Your task to perform on an android device: open chrome privacy settings Image 0: 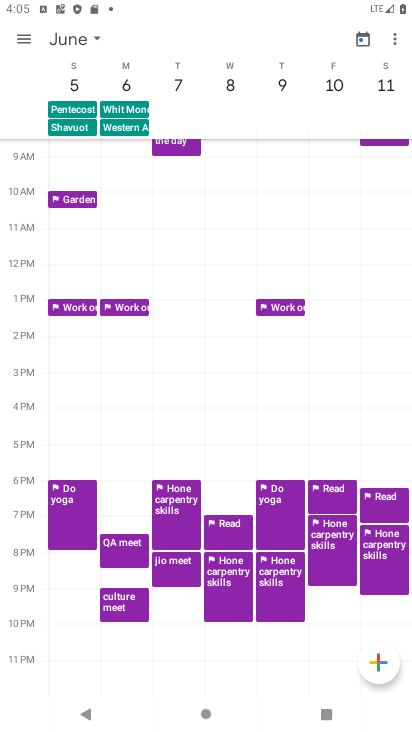
Step 0: press home button
Your task to perform on an android device: open chrome privacy settings Image 1: 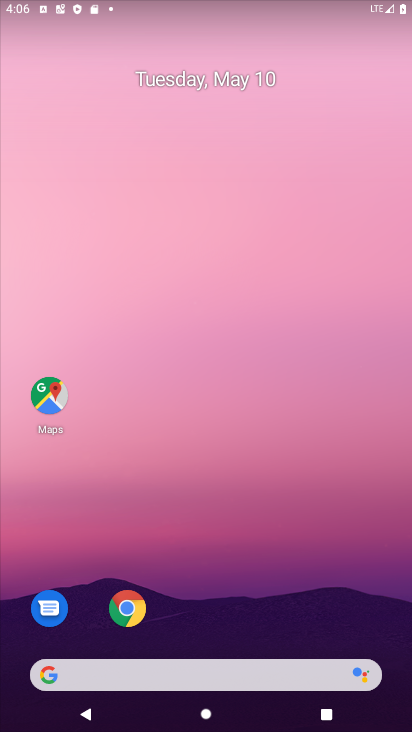
Step 1: click (127, 609)
Your task to perform on an android device: open chrome privacy settings Image 2: 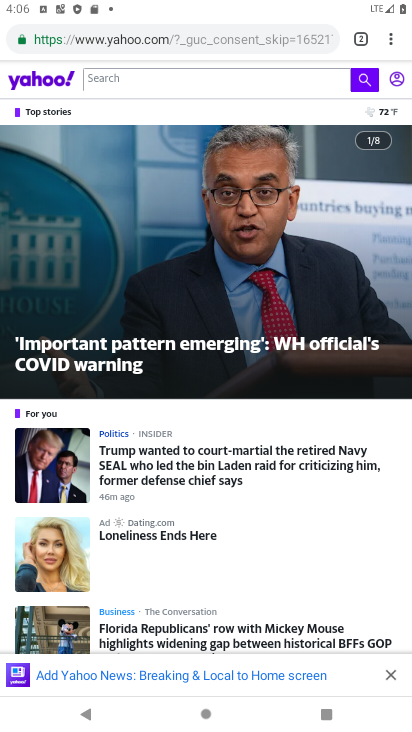
Step 2: click (390, 41)
Your task to perform on an android device: open chrome privacy settings Image 3: 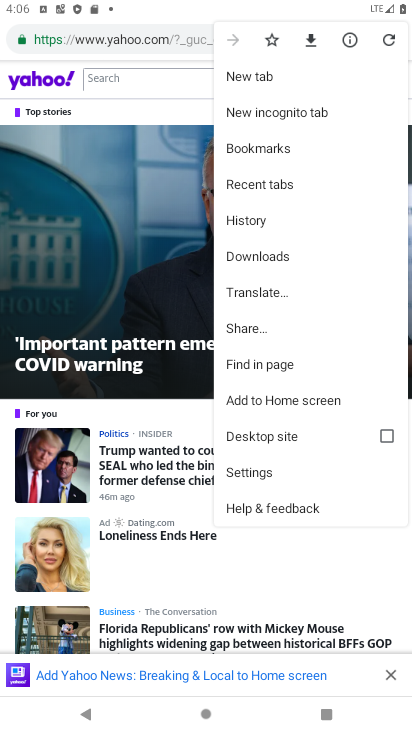
Step 3: click (256, 467)
Your task to perform on an android device: open chrome privacy settings Image 4: 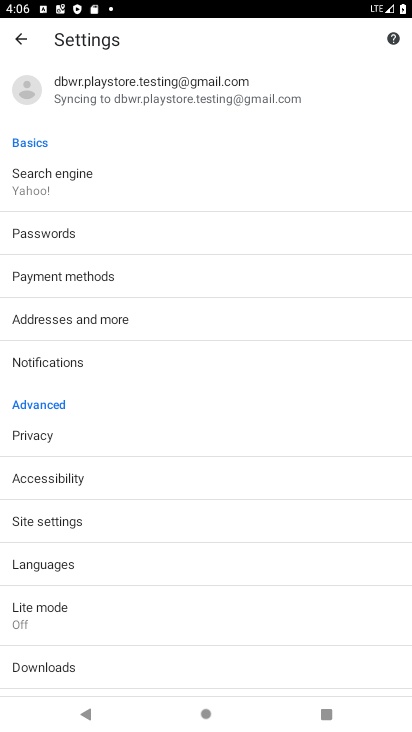
Step 4: click (40, 430)
Your task to perform on an android device: open chrome privacy settings Image 5: 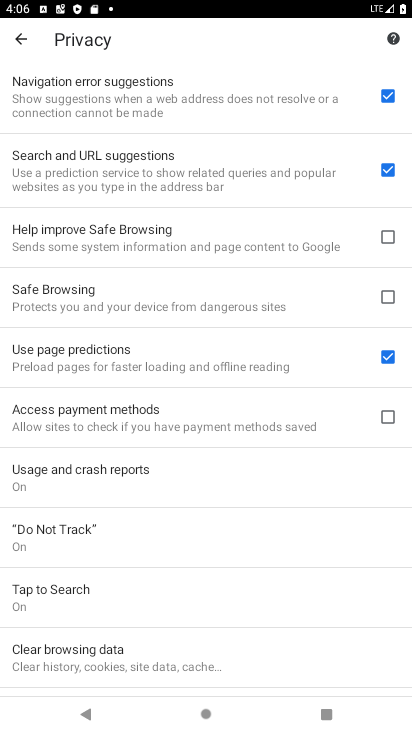
Step 5: task complete